Your task to perform on an android device: Open the Play Movies app and select the watchlist tab. Image 0: 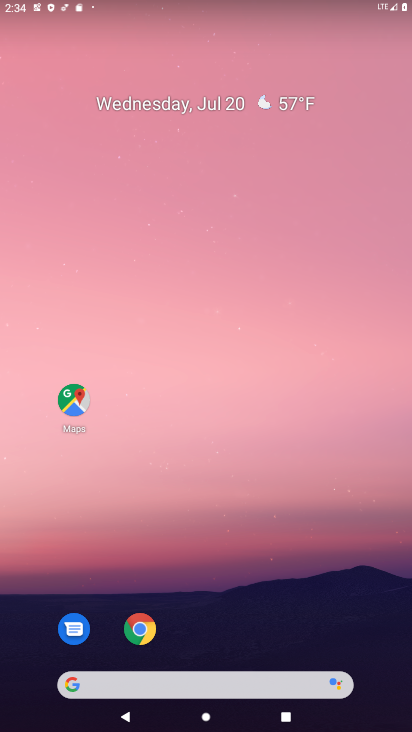
Step 0: drag from (204, 672) to (181, 145)
Your task to perform on an android device: Open the Play Movies app and select the watchlist tab. Image 1: 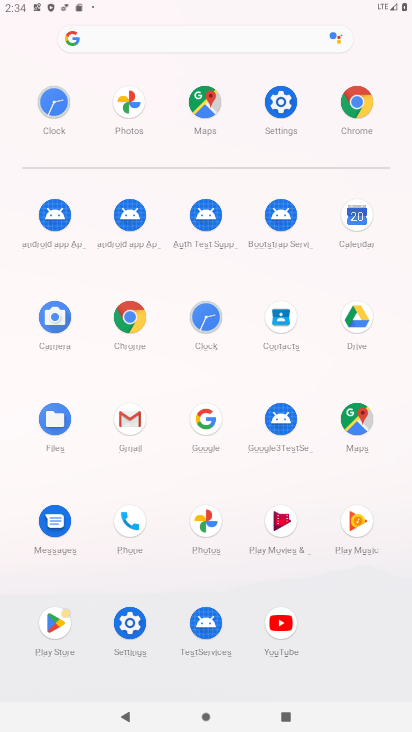
Step 1: click (277, 537)
Your task to perform on an android device: Open the Play Movies app and select the watchlist tab. Image 2: 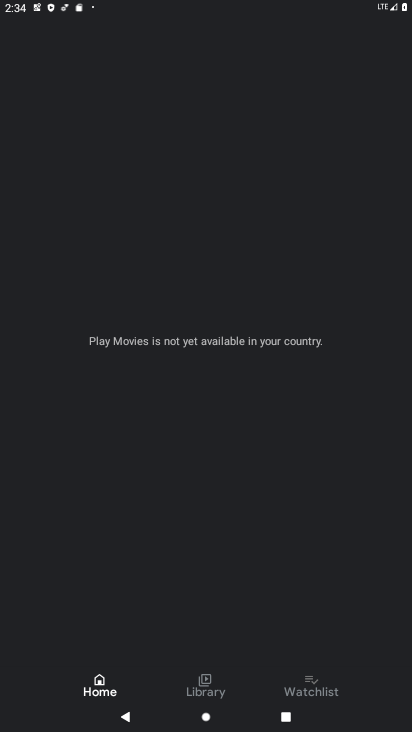
Step 2: click (307, 687)
Your task to perform on an android device: Open the Play Movies app and select the watchlist tab. Image 3: 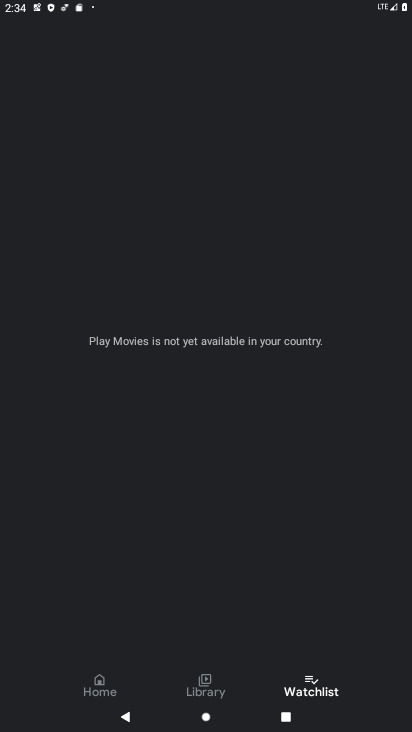
Step 3: task complete